Your task to perform on an android device: install app "Firefox Browser" Image 0: 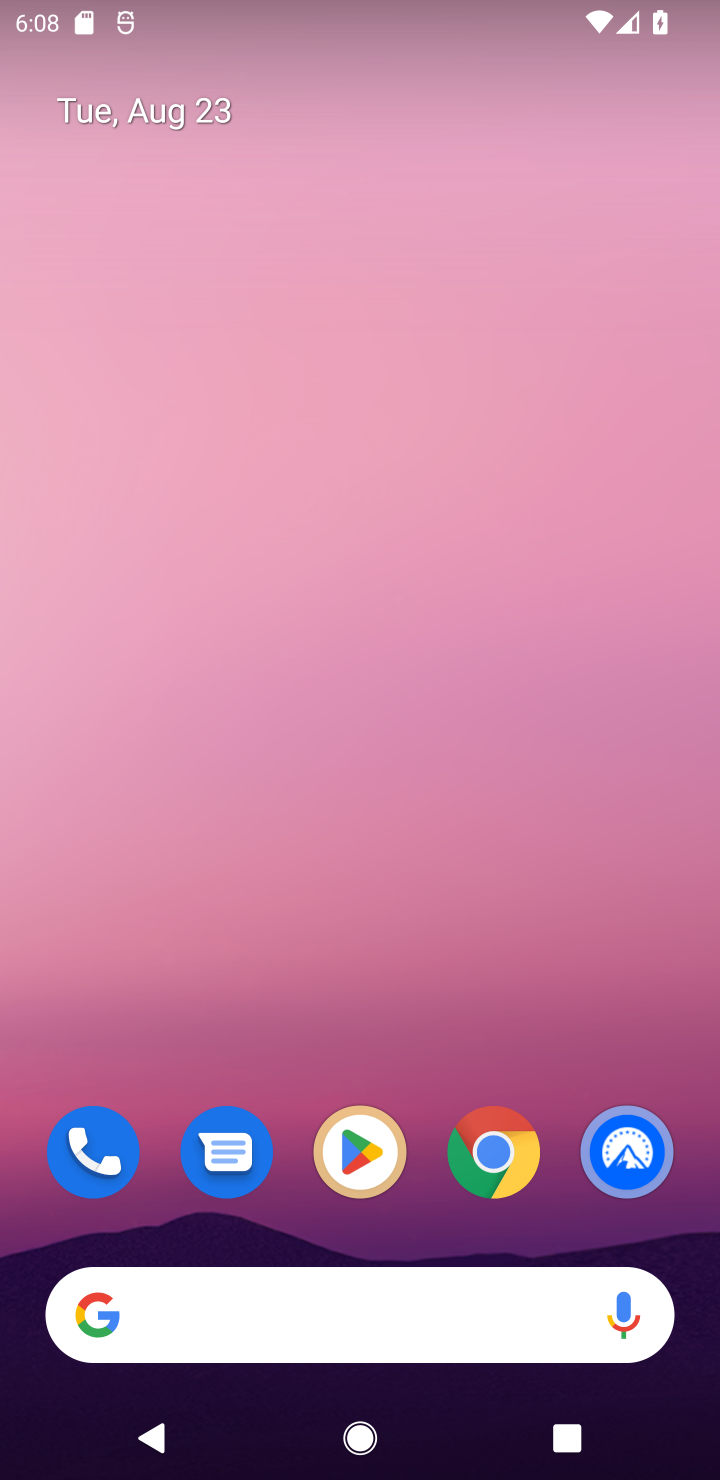
Step 0: click (389, 1145)
Your task to perform on an android device: install app "Firefox Browser" Image 1: 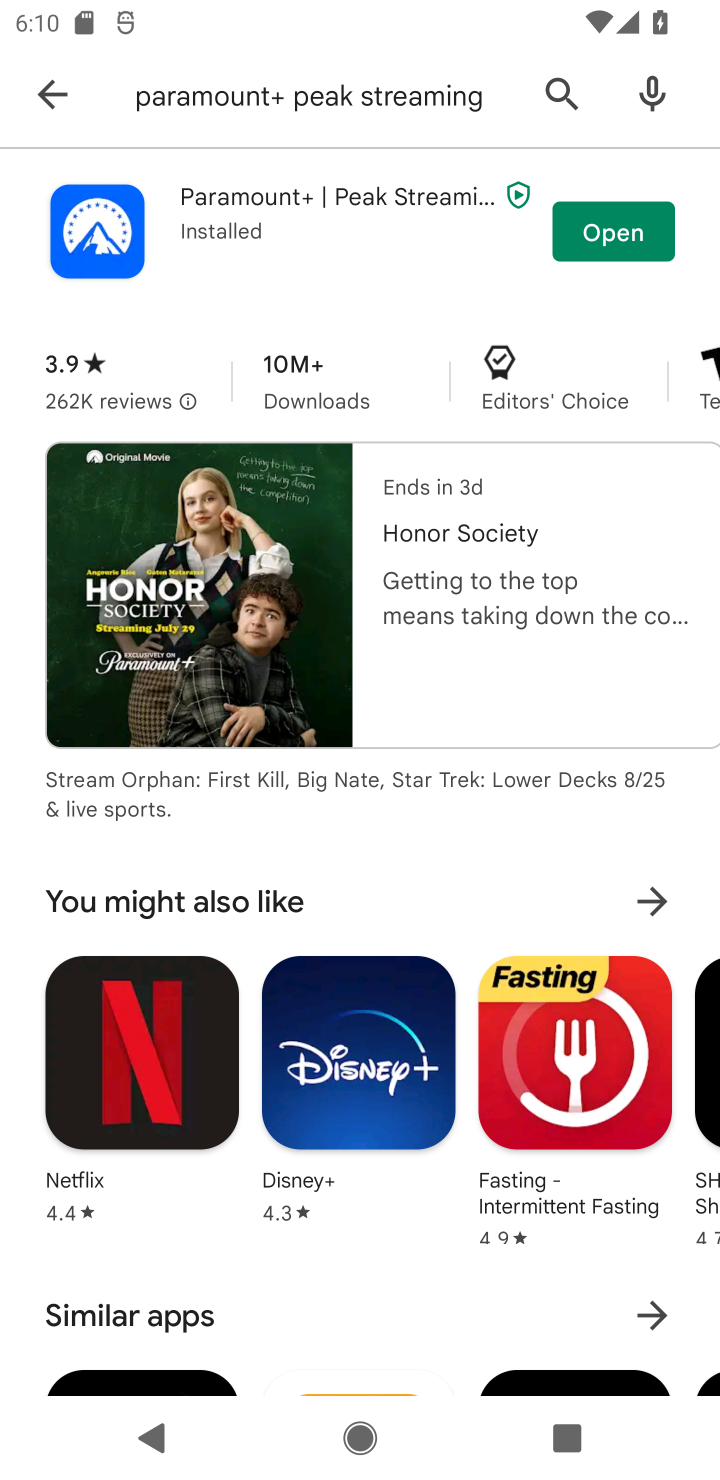
Step 1: click (557, 111)
Your task to perform on an android device: install app "Firefox Browser" Image 2: 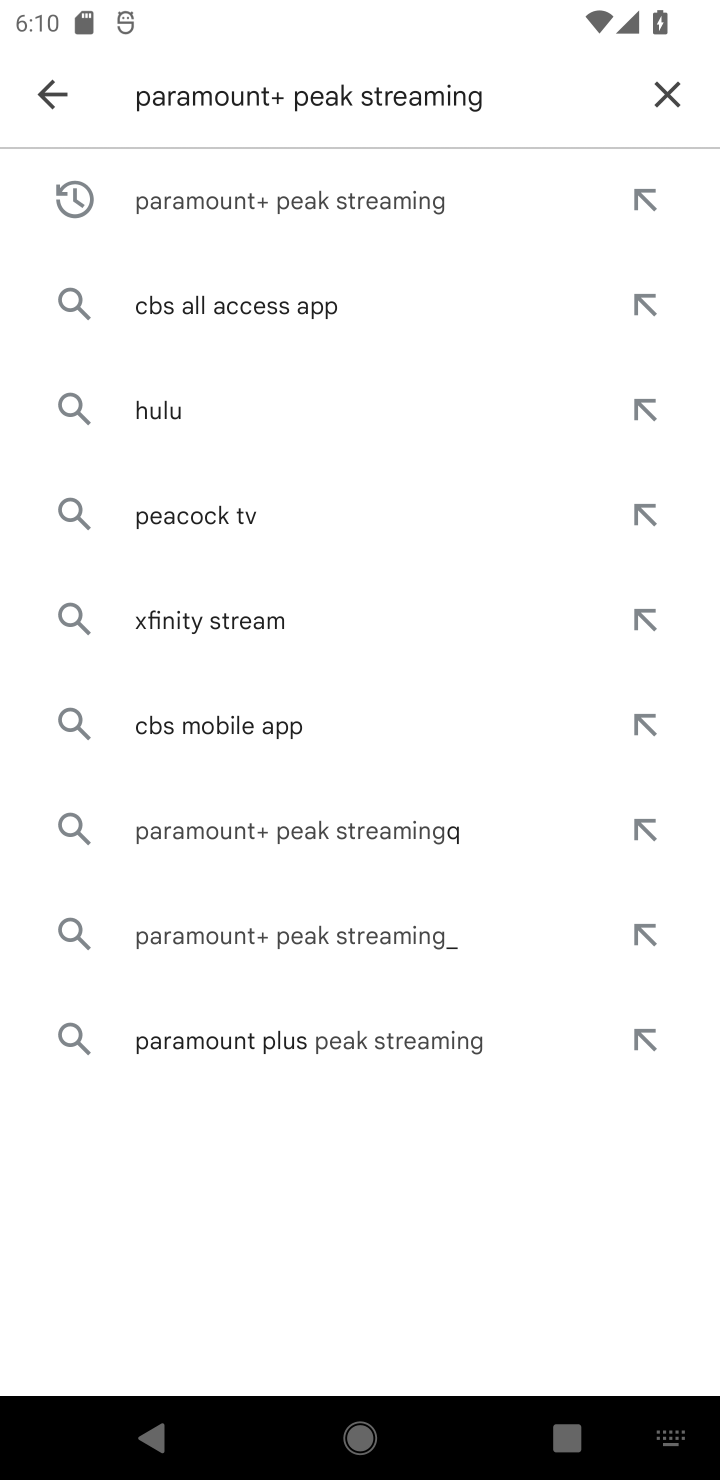
Step 2: click (684, 86)
Your task to perform on an android device: install app "Firefox Browser" Image 3: 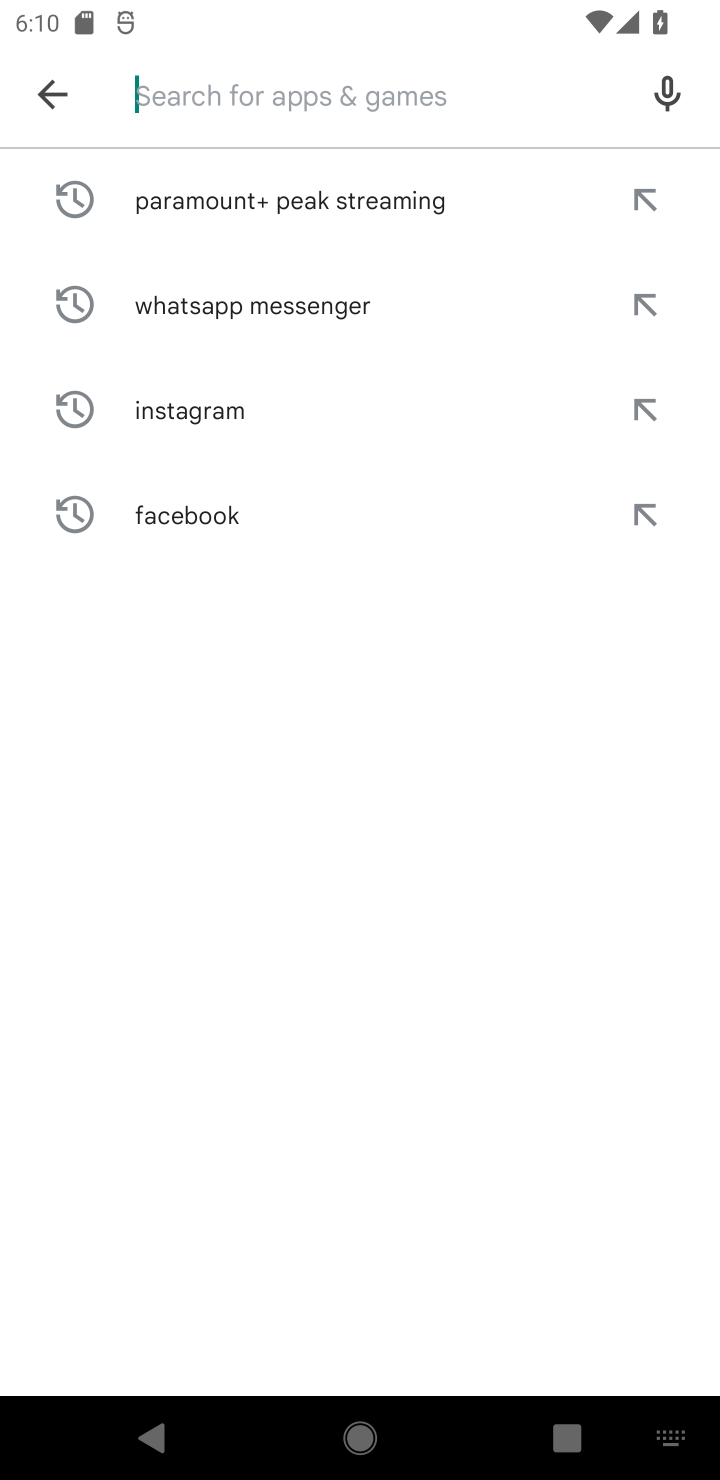
Step 3: click (305, 91)
Your task to perform on an android device: install app "Firefox Browser" Image 4: 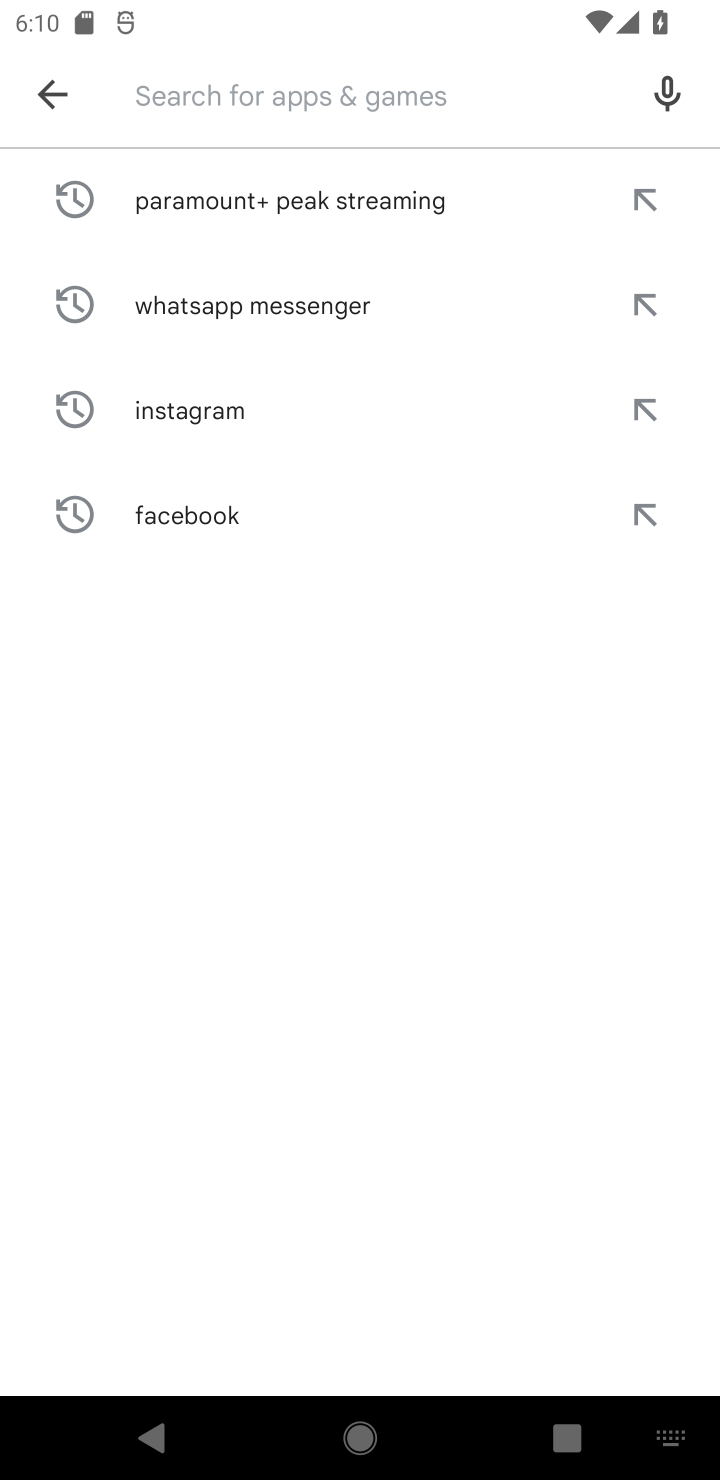
Step 4: type "Firefox Browser"
Your task to perform on an android device: install app "Firefox Browser" Image 5: 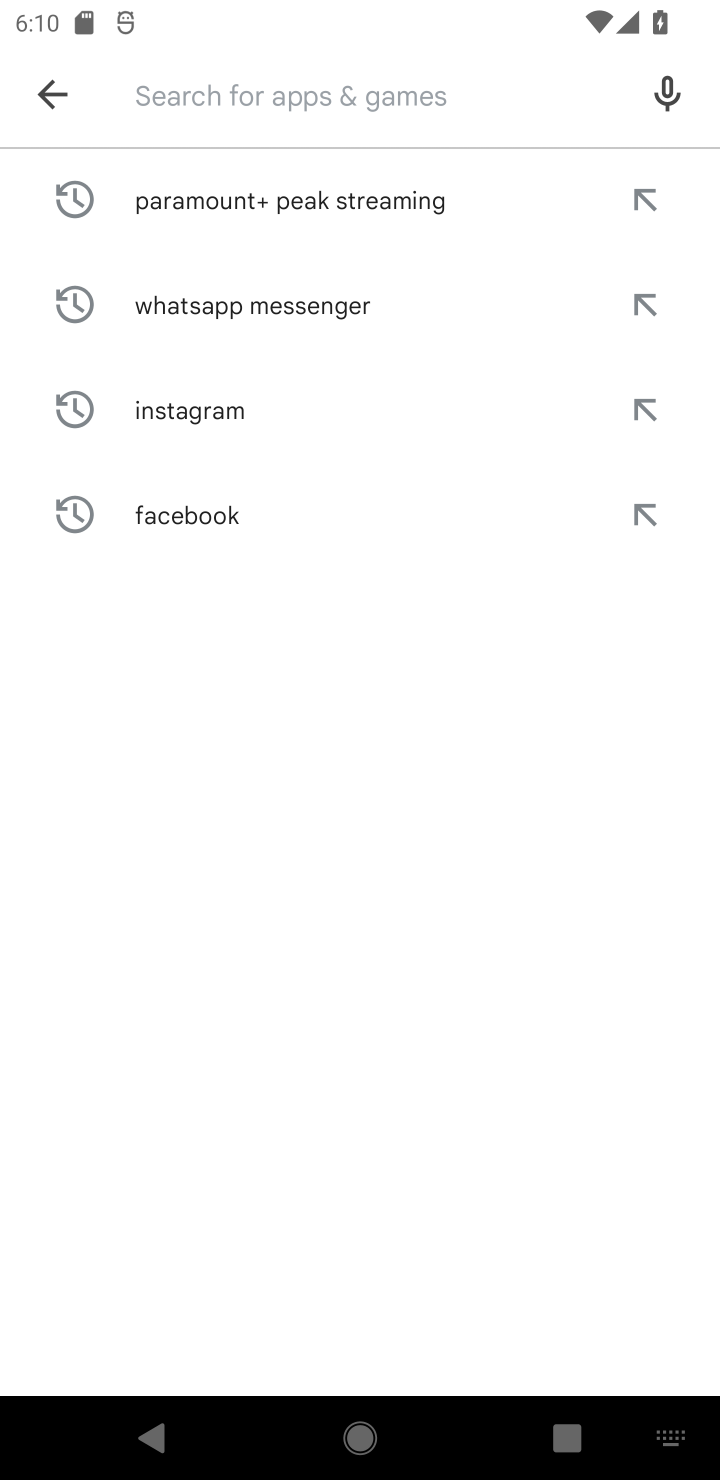
Step 5: click (467, 1002)
Your task to perform on an android device: install app "Firefox Browser" Image 6: 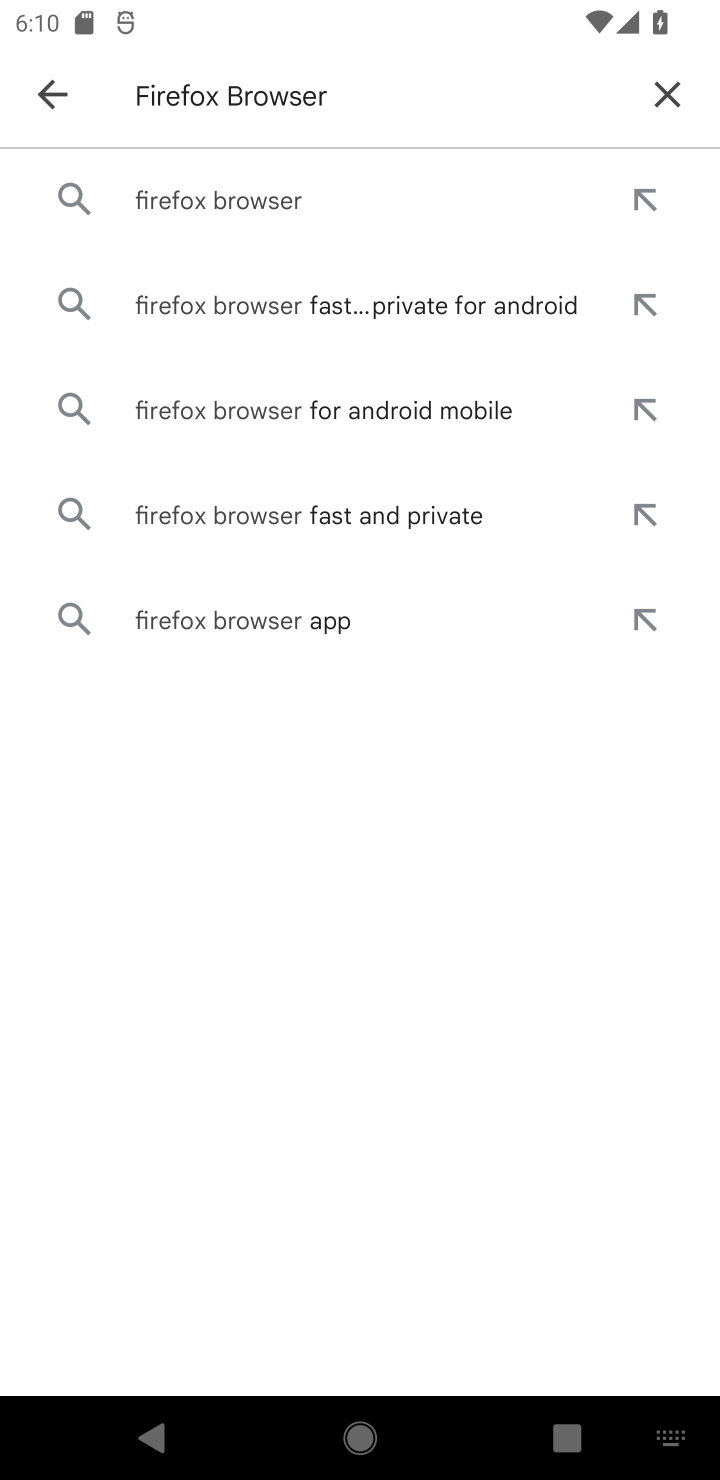
Step 6: click (274, 207)
Your task to perform on an android device: install app "Firefox Browser" Image 7: 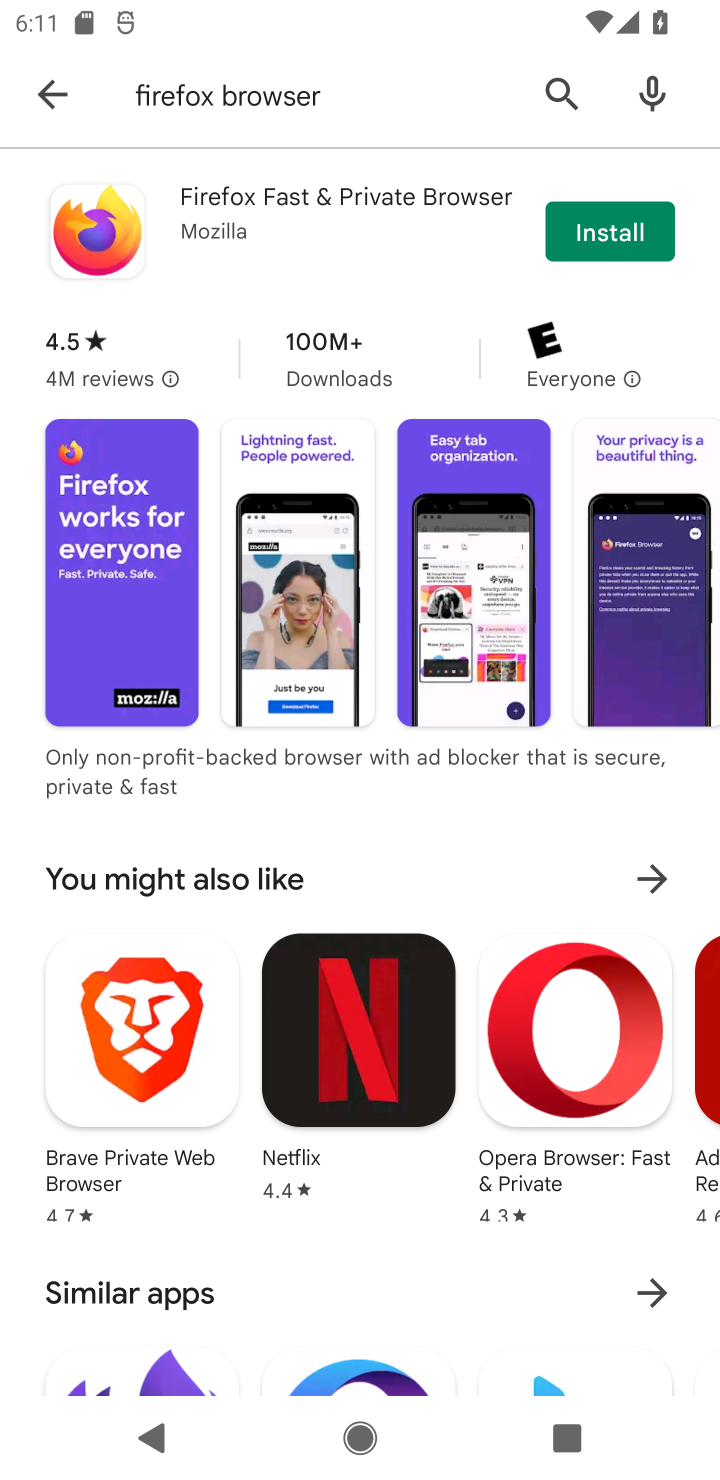
Step 7: click (615, 228)
Your task to perform on an android device: install app "Firefox Browser" Image 8: 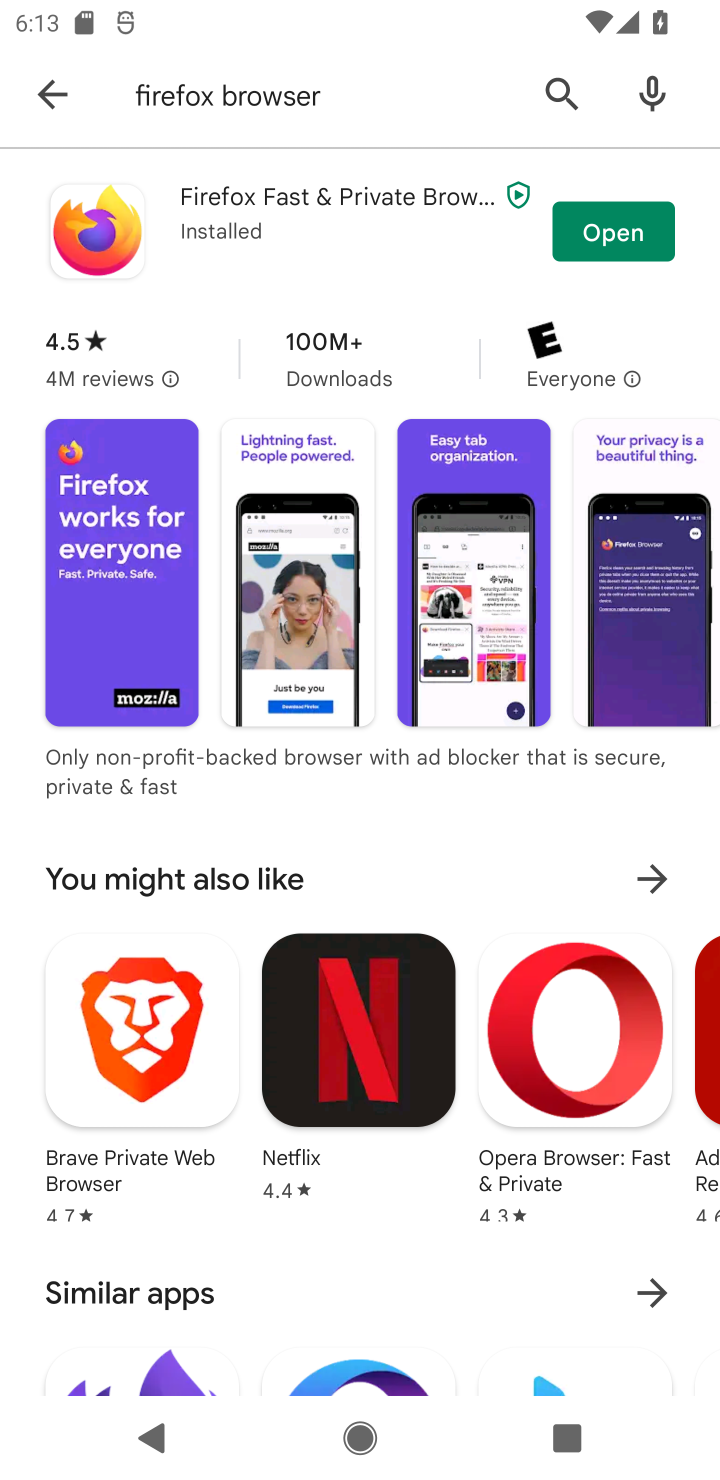
Step 8: task complete